Your task to perform on an android device: turn vacation reply on in the gmail app Image 0: 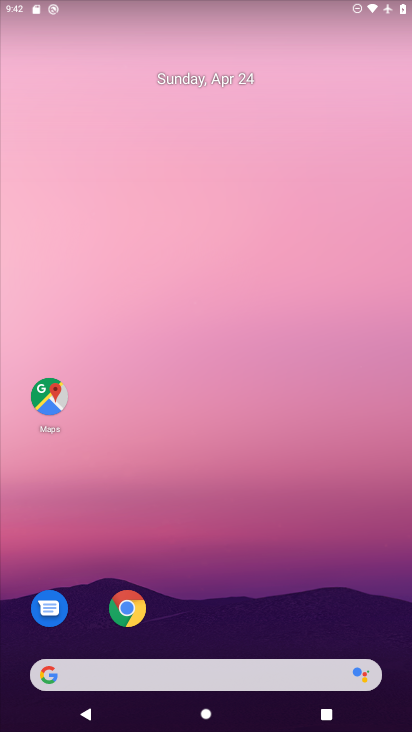
Step 0: drag from (203, 544) to (218, 101)
Your task to perform on an android device: turn vacation reply on in the gmail app Image 1: 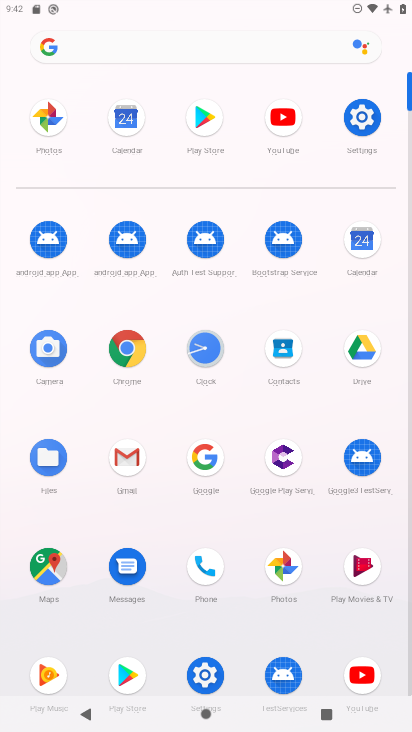
Step 1: click (125, 464)
Your task to perform on an android device: turn vacation reply on in the gmail app Image 2: 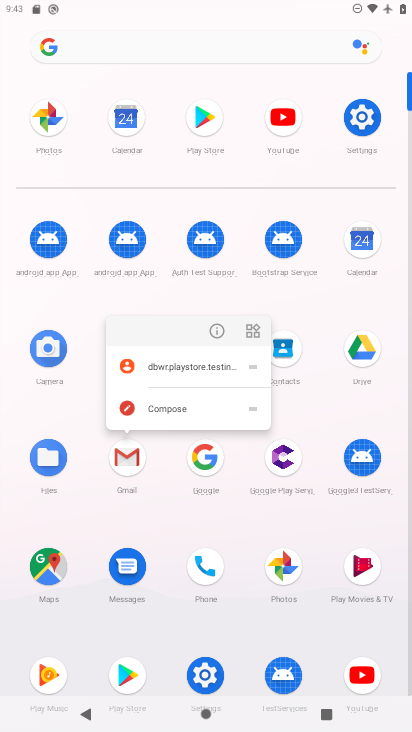
Step 2: click (129, 466)
Your task to perform on an android device: turn vacation reply on in the gmail app Image 3: 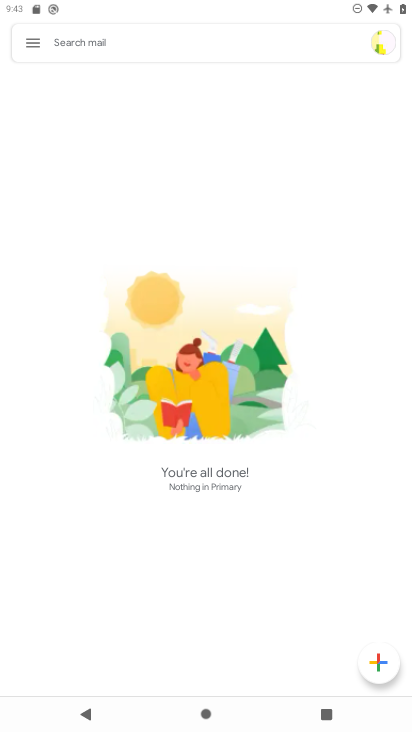
Step 3: click (28, 48)
Your task to perform on an android device: turn vacation reply on in the gmail app Image 4: 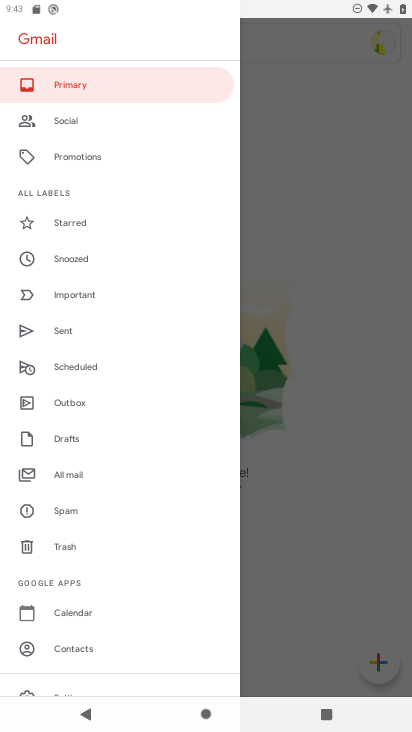
Step 4: drag from (104, 618) to (131, 465)
Your task to perform on an android device: turn vacation reply on in the gmail app Image 5: 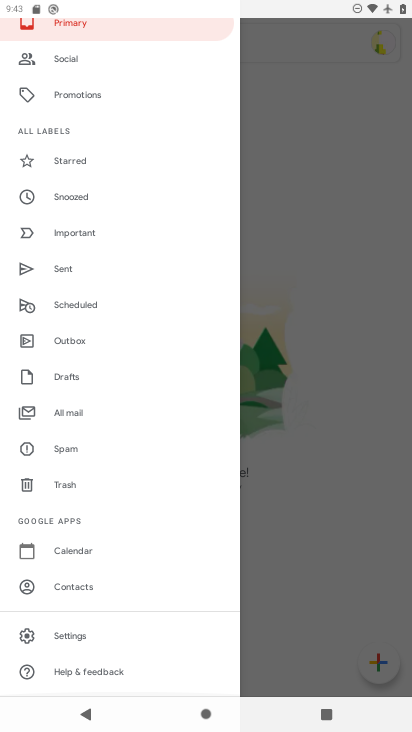
Step 5: click (74, 629)
Your task to perform on an android device: turn vacation reply on in the gmail app Image 6: 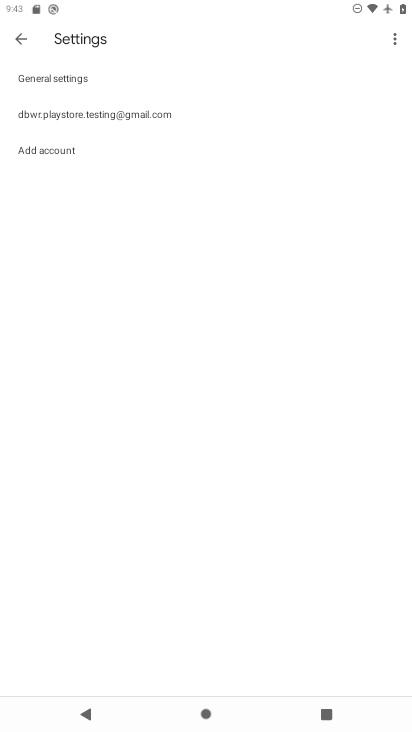
Step 6: click (155, 120)
Your task to perform on an android device: turn vacation reply on in the gmail app Image 7: 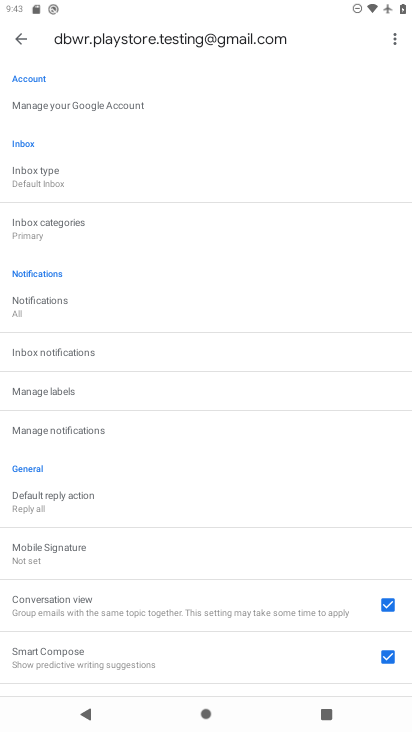
Step 7: drag from (152, 626) to (189, 337)
Your task to perform on an android device: turn vacation reply on in the gmail app Image 8: 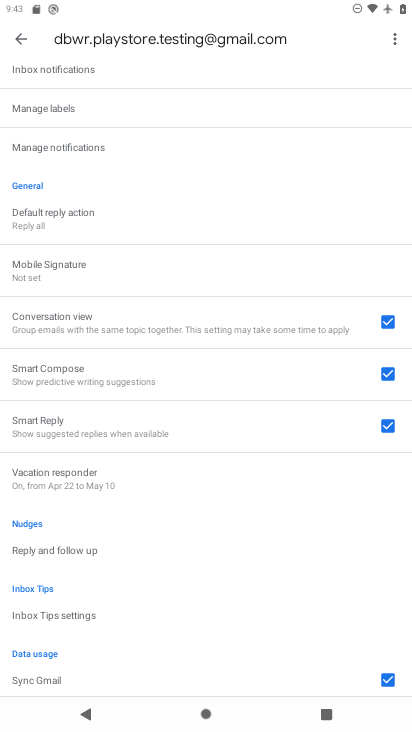
Step 8: click (100, 485)
Your task to perform on an android device: turn vacation reply on in the gmail app Image 9: 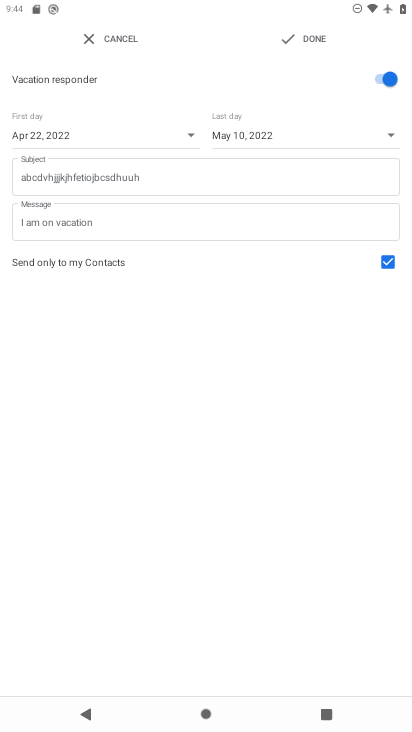
Step 9: task complete